Your task to perform on an android device: show emergency info Image 0: 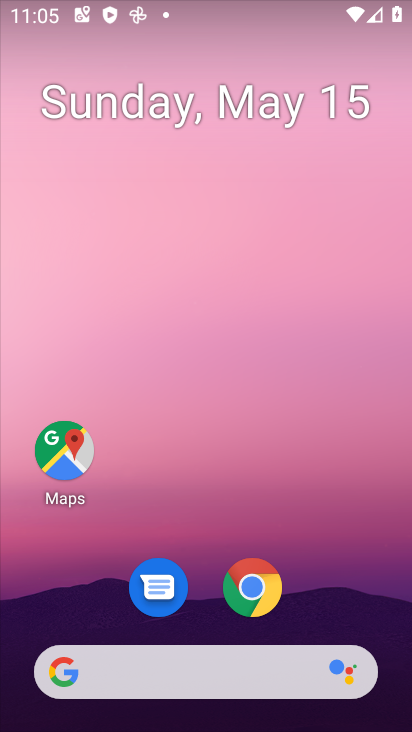
Step 0: drag from (377, 633) to (260, 67)
Your task to perform on an android device: show emergency info Image 1: 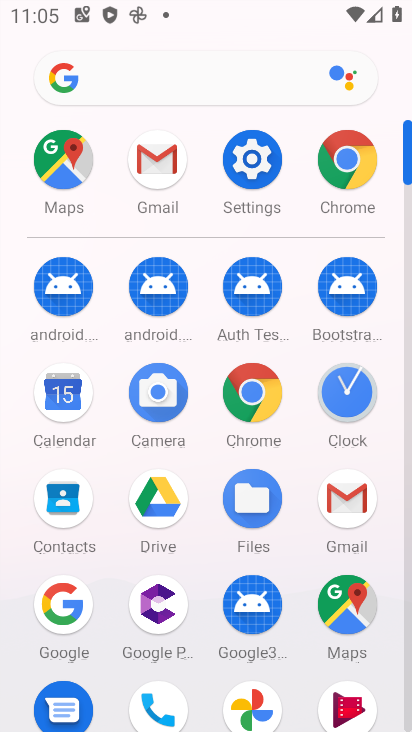
Step 1: drag from (193, 657) to (216, 88)
Your task to perform on an android device: show emergency info Image 2: 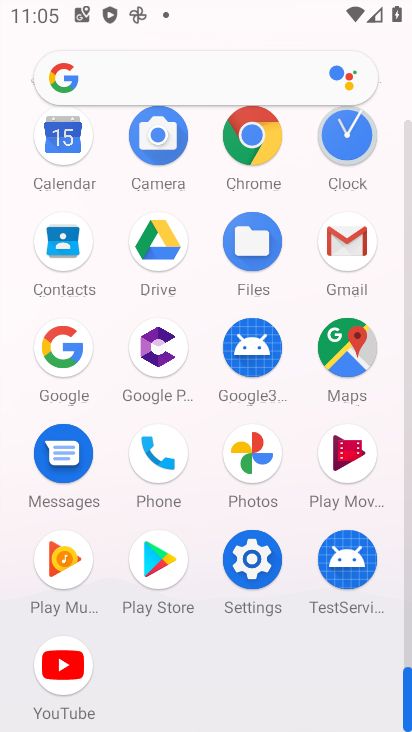
Step 2: click (270, 574)
Your task to perform on an android device: show emergency info Image 3: 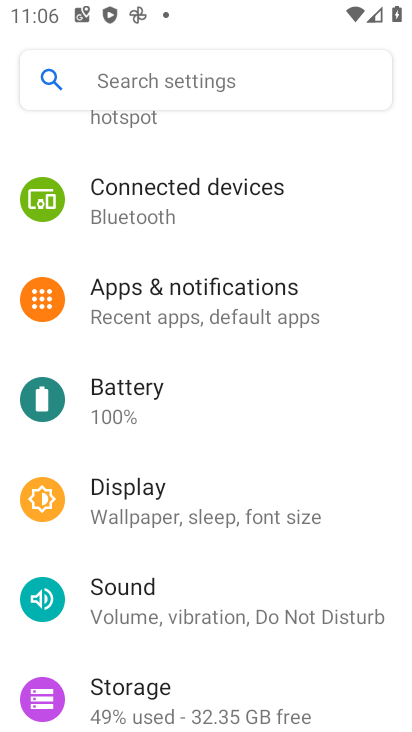
Step 3: drag from (207, 671) to (228, 31)
Your task to perform on an android device: show emergency info Image 4: 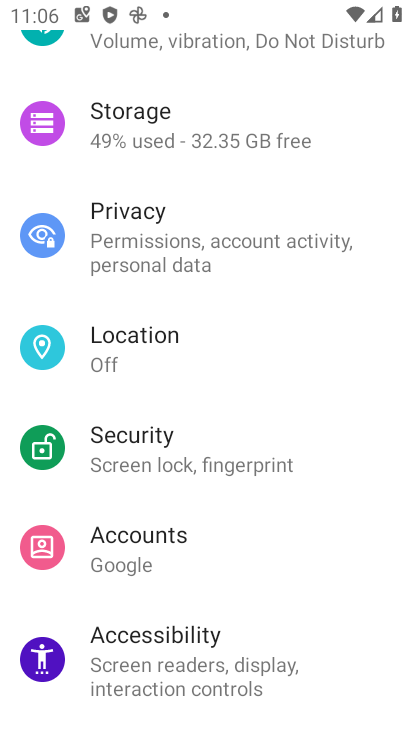
Step 4: drag from (175, 653) to (221, 112)
Your task to perform on an android device: show emergency info Image 5: 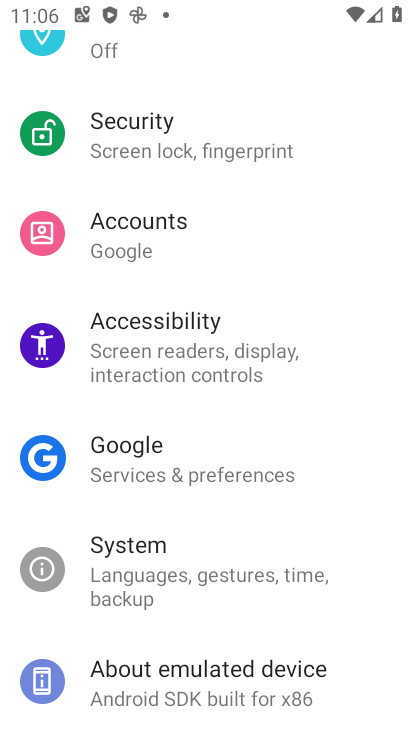
Step 5: click (154, 676)
Your task to perform on an android device: show emergency info Image 6: 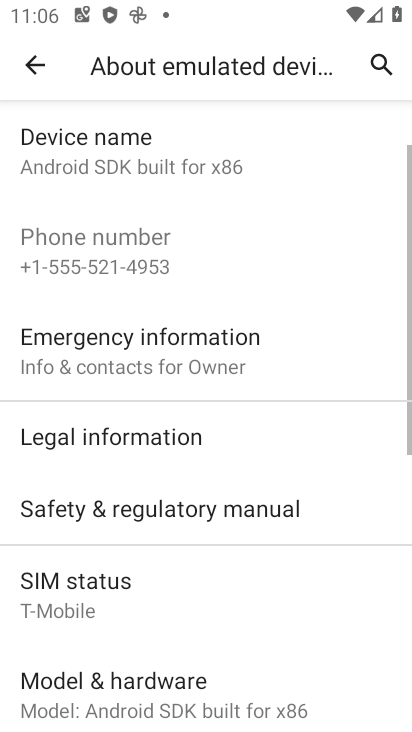
Step 6: click (130, 362)
Your task to perform on an android device: show emergency info Image 7: 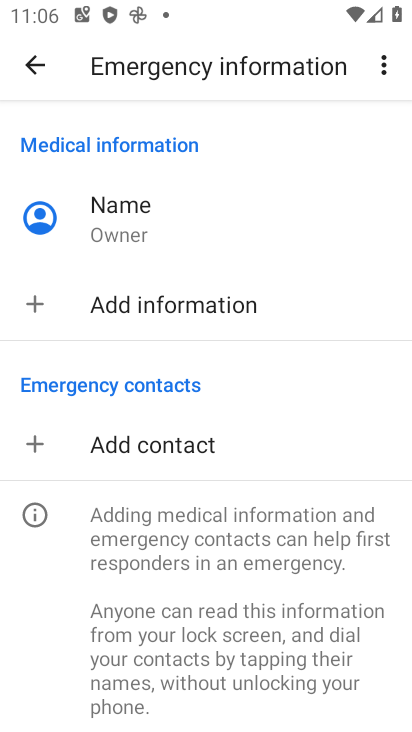
Step 7: task complete